Your task to perform on an android device: clear all cookies in the chrome app Image 0: 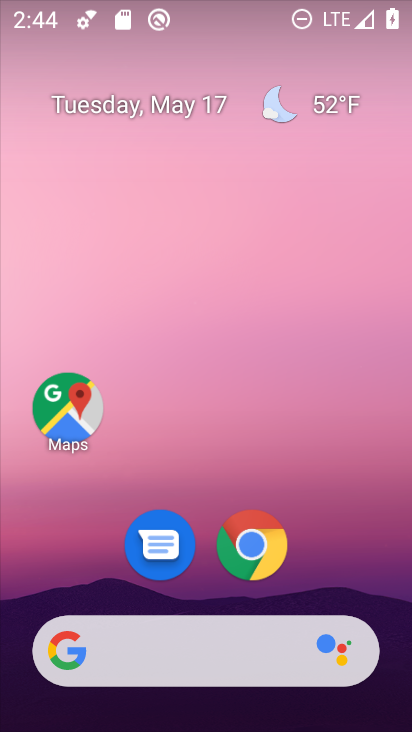
Step 0: drag from (371, 577) to (377, 145)
Your task to perform on an android device: clear all cookies in the chrome app Image 1: 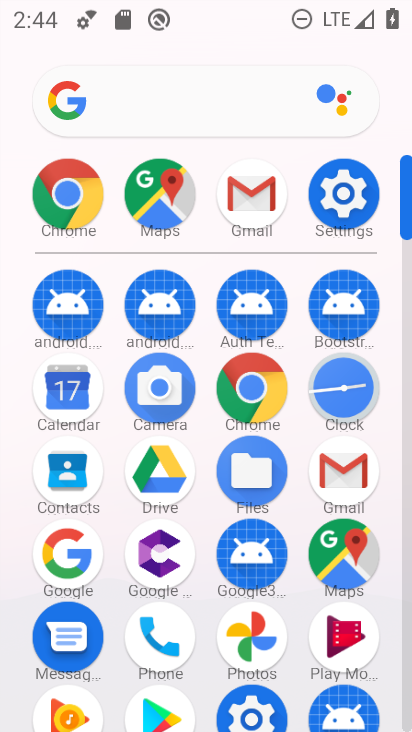
Step 1: click (274, 405)
Your task to perform on an android device: clear all cookies in the chrome app Image 2: 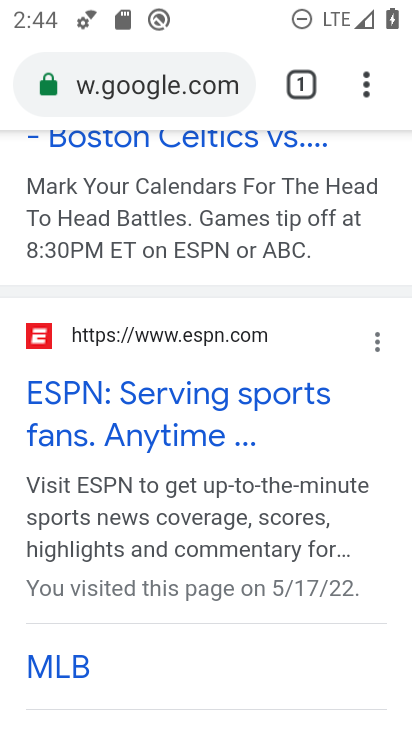
Step 2: click (368, 95)
Your task to perform on an android device: clear all cookies in the chrome app Image 3: 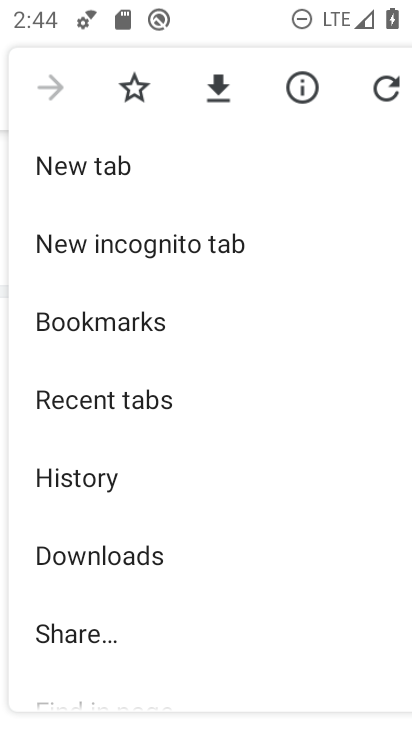
Step 3: drag from (359, 522) to (353, 404)
Your task to perform on an android device: clear all cookies in the chrome app Image 4: 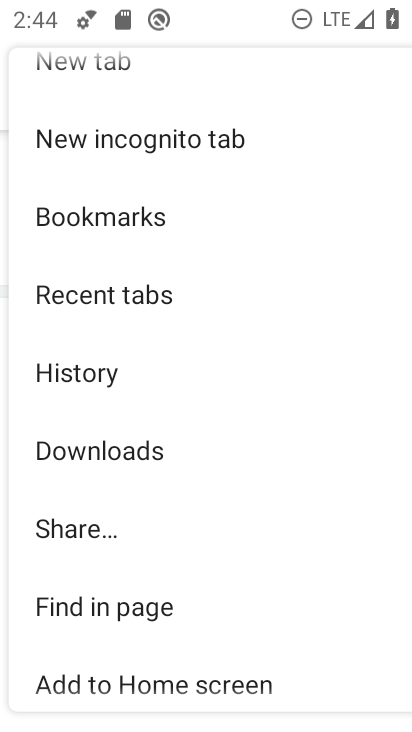
Step 4: drag from (304, 546) to (315, 362)
Your task to perform on an android device: clear all cookies in the chrome app Image 5: 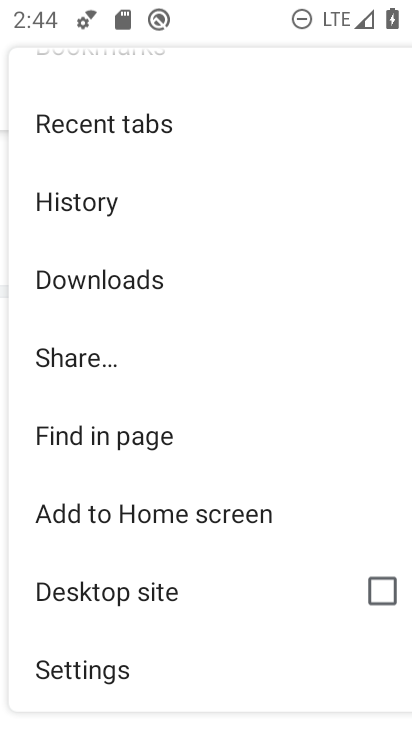
Step 5: drag from (306, 597) to (311, 467)
Your task to perform on an android device: clear all cookies in the chrome app Image 6: 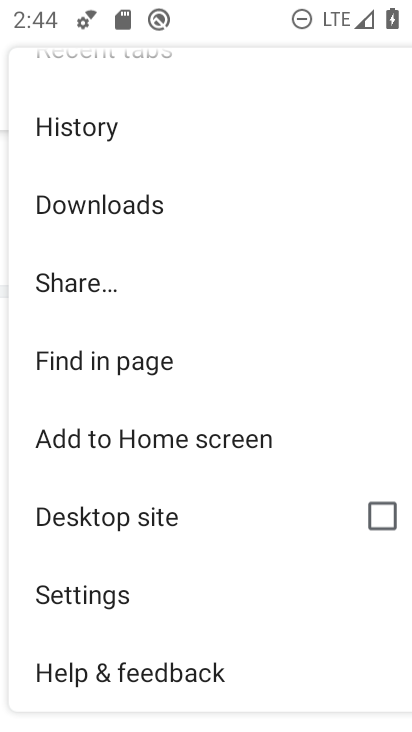
Step 6: drag from (301, 650) to (317, 497)
Your task to perform on an android device: clear all cookies in the chrome app Image 7: 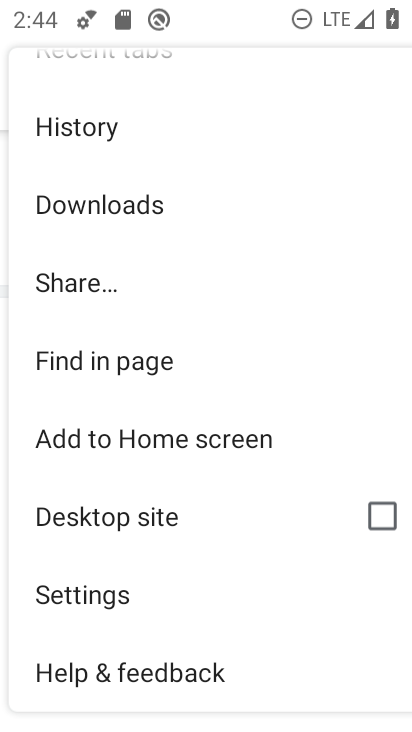
Step 7: drag from (309, 598) to (322, 459)
Your task to perform on an android device: clear all cookies in the chrome app Image 8: 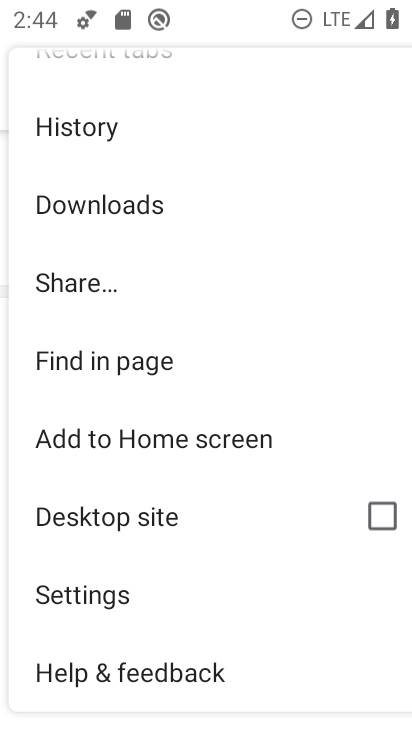
Step 8: drag from (343, 318) to (323, 424)
Your task to perform on an android device: clear all cookies in the chrome app Image 9: 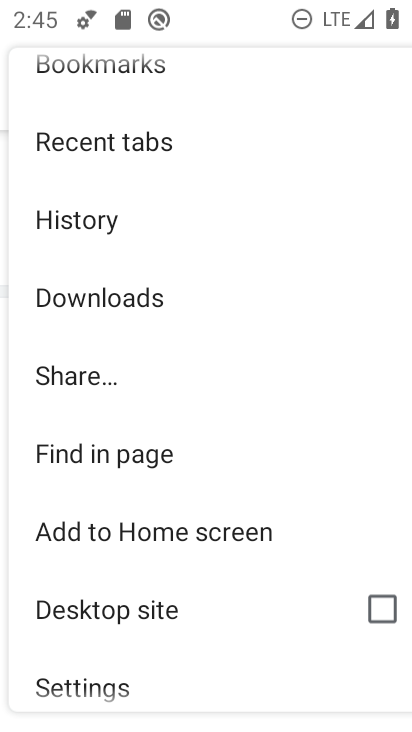
Step 9: click (162, 692)
Your task to perform on an android device: clear all cookies in the chrome app Image 10: 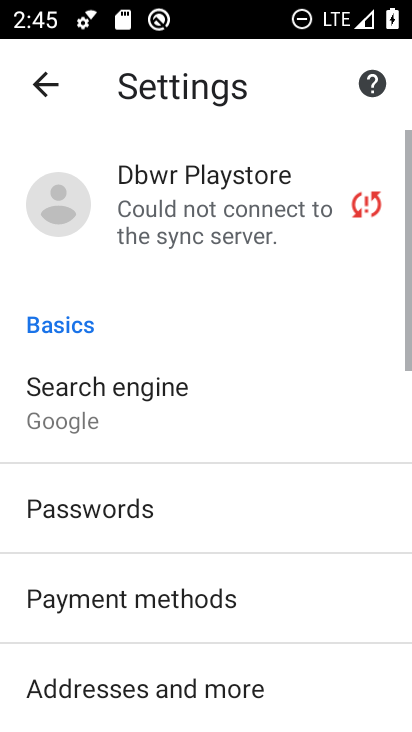
Step 10: drag from (298, 623) to (323, 477)
Your task to perform on an android device: clear all cookies in the chrome app Image 11: 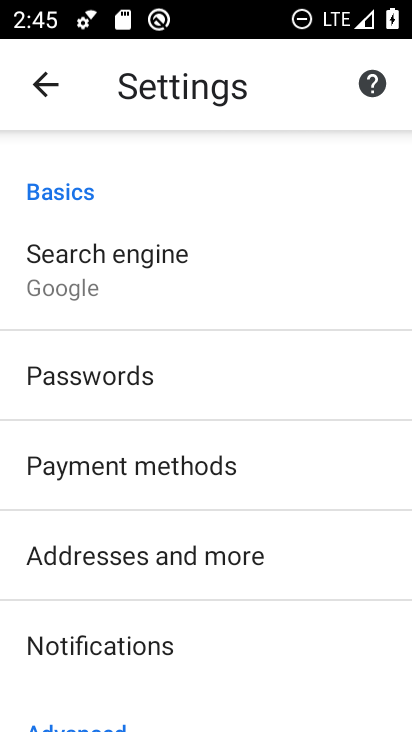
Step 11: drag from (317, 662) to (328, 568)
Your task to perform on an android device: clear all cookies in the chrome app Image 12: 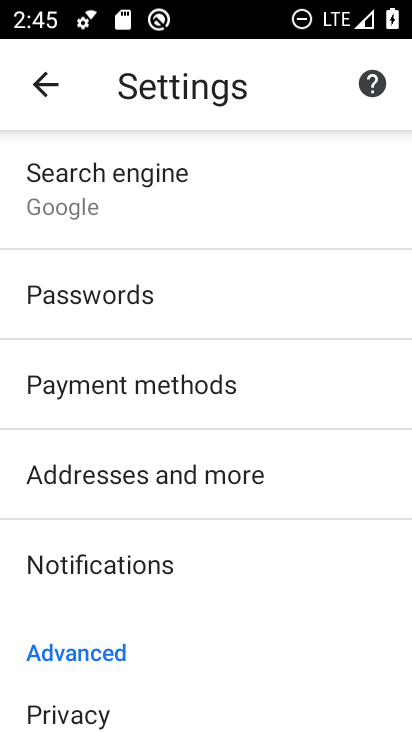
Step 12: drag from (329, 683) to (336, 551)
Your task to perform on an android device: clear all cookies in the chrome app Image 13: 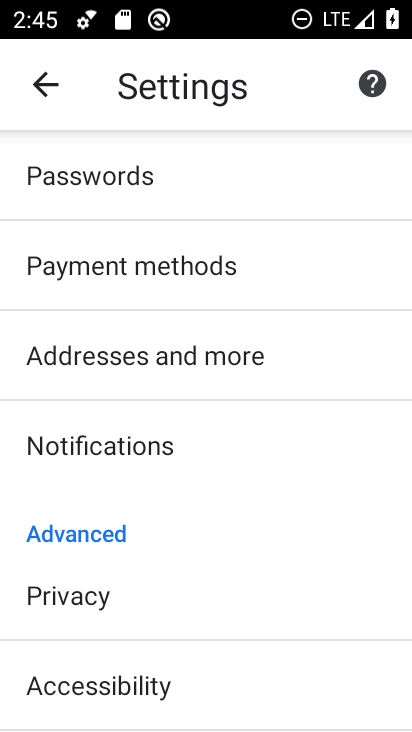
Step 13: drag from (308, 664) to (327, 553)
Your task to perform on an android device: clear all cookies in the chrome app Image 14: 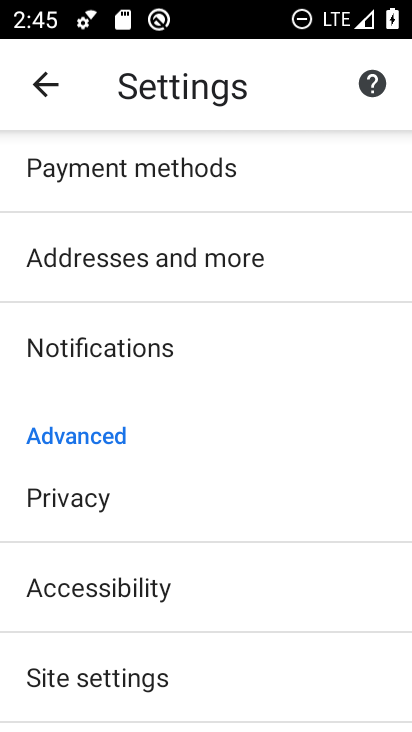
Step 14: drag from (321, 608) to (323, 476)
Your task to perform on an android device: clear all cookies in the chrome app Image 15: 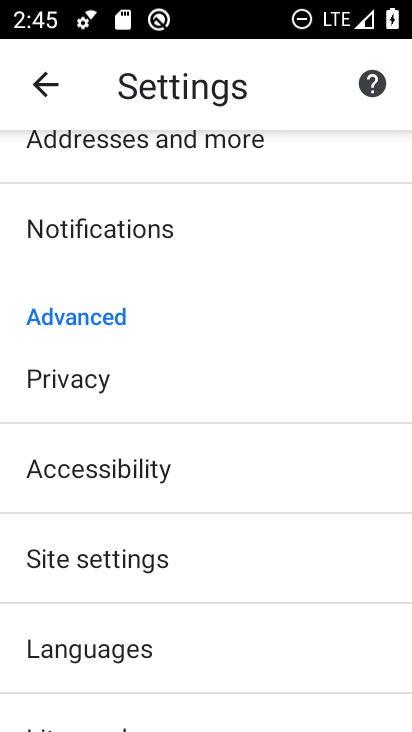
Step 15: drag from (312, 629) to (314, 518)
Your task to perform on an android device: clear all cookies in the chrome app Image 16: 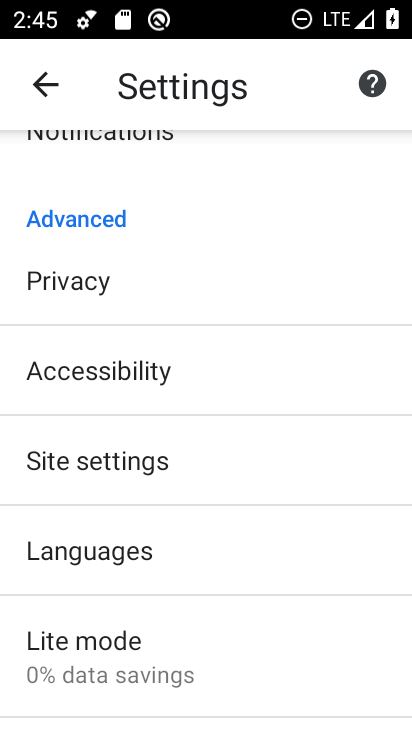
Step 16: drag from (314, 663) to (319, 549)
Your task to perform on an android device: clear all cookies in the chrome app Image 17: 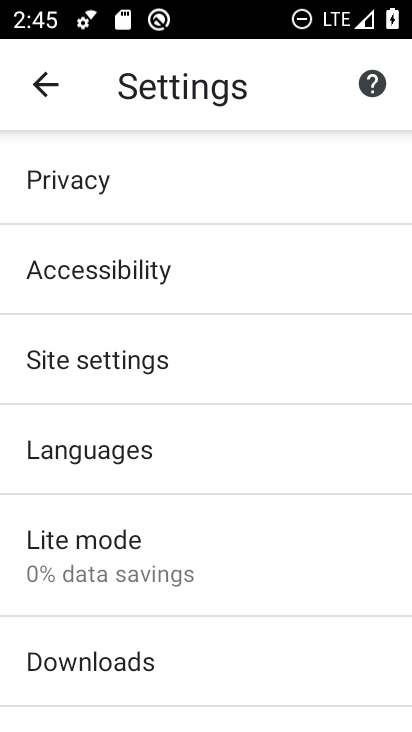
Step 17: drag from (305, 682) to (309, 562)
Your task to perform on an android device: clear all cookies in the chrome app Image 18: 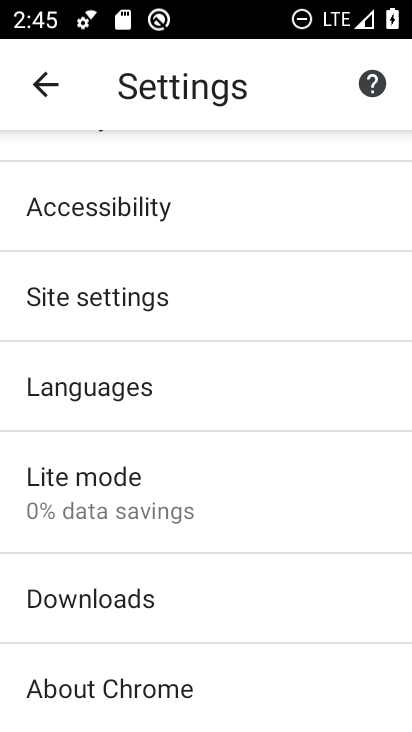
Step 18: drag from (301, 690) to (310, 578)
Your task to perform on an android device: clear all cookies in the chrome app Image 19: 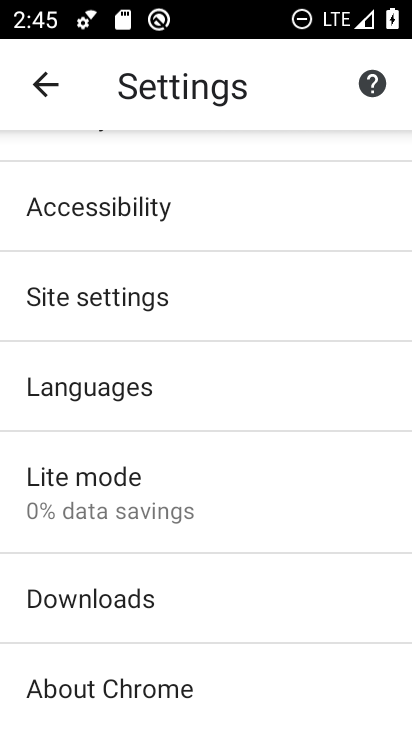
Step 19: drag from (307, 363) to (309, 453)
Your task to perform on an android device: clear all cookies in the chrome app Image 20: 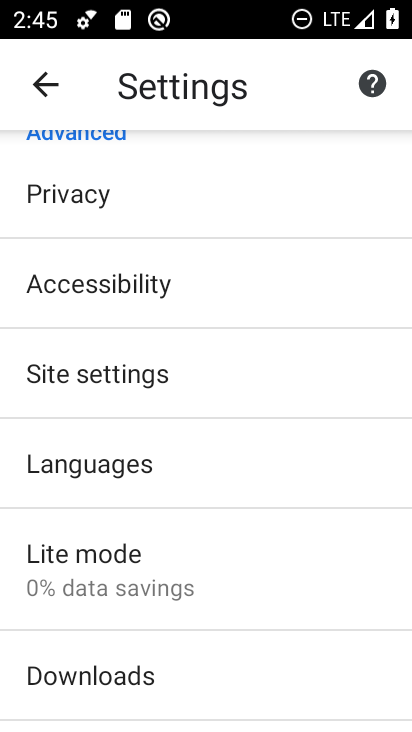
Step 20: drag from (285, 641) to (288, 531)
Your task to perform on an android device: clear all cookies in the chrome app Image 21: 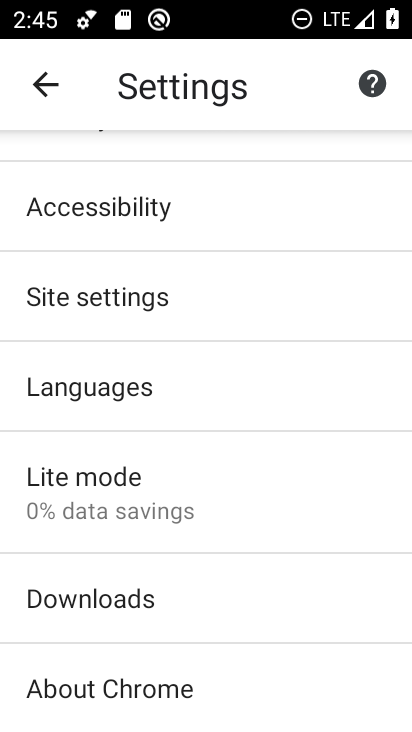
Step 21: drag from (315, 320) to (304, 473)
Your task to perform on an android device: clear all cookies in the chrome app Image 22: 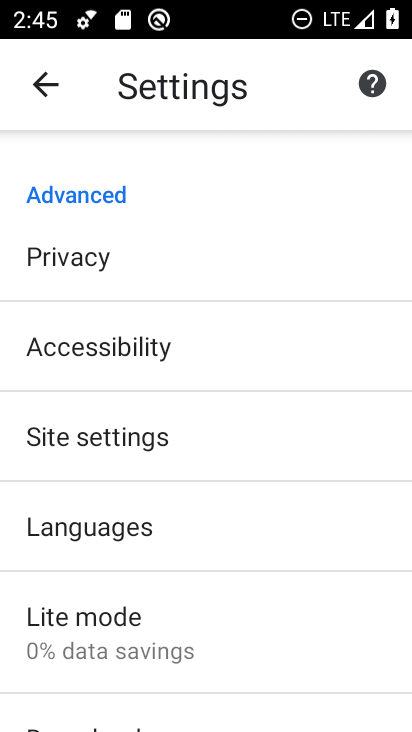
Step 22: click (191, 282)
Your task to perform on an android device: clear all cookies in the chrome app Image 23: 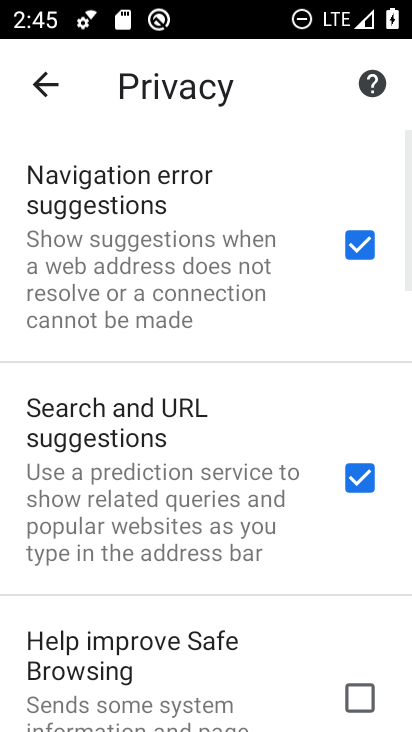
Step 23: drag from (273, 593) to (280, 486)
Your task to perform on an android device: clear all cookies in the chrome app Image 24: 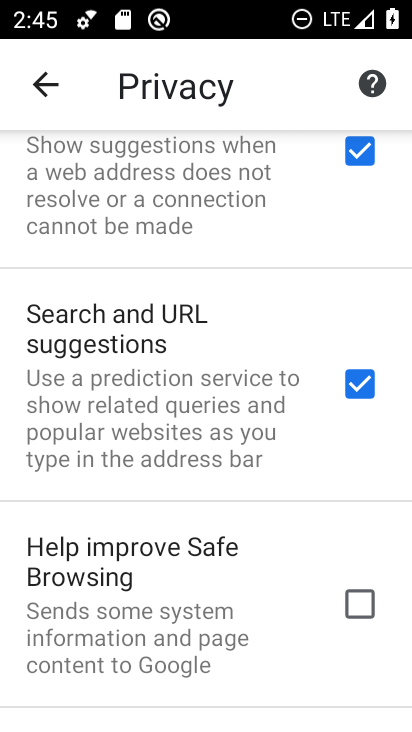
Step 24: drag from (294, 640) to (300, 542)
Your task to perform on an android device: clear all cookies in the chrome app Image 25: 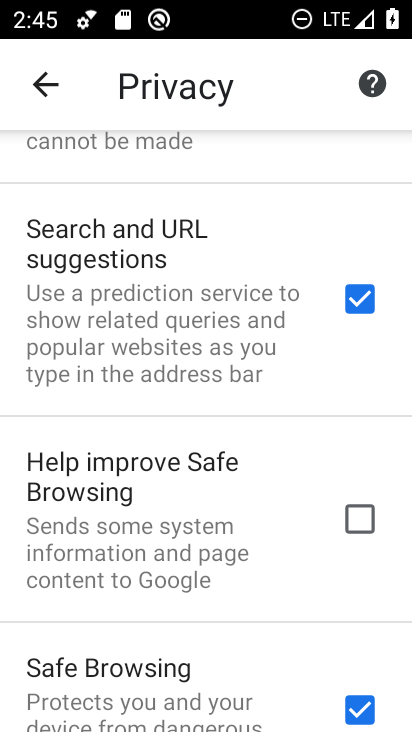
Step 25: drag from (274, 688) to (280, 589)
Your task to perform on an android device: clear all cookies in the chrome app Image 26: 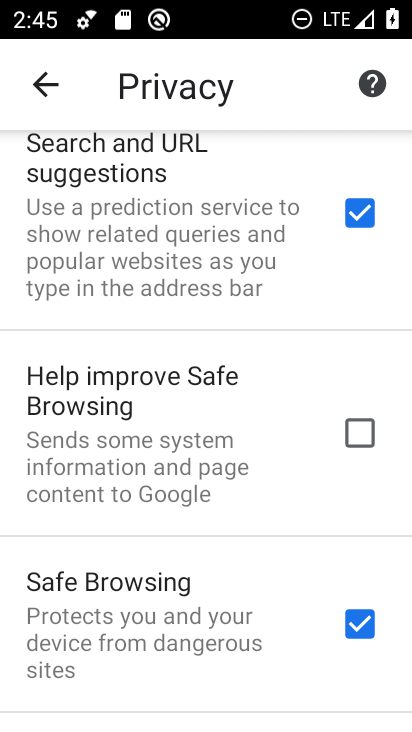
Step 26: drag from (286, 642) to (287, 527)
Your task to perform on an android device: clear all cookies in the chrome app Image 27: 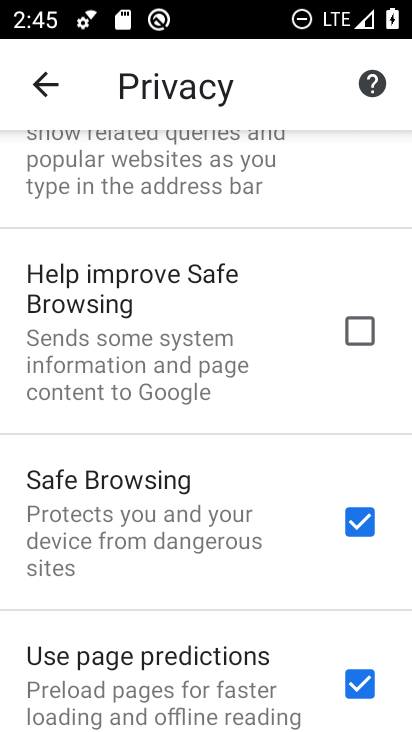
Step 27: drag from (284, 593) to (273, 485)
Your task to perform on an android device: clear all cookies in the chrome app Image 28: 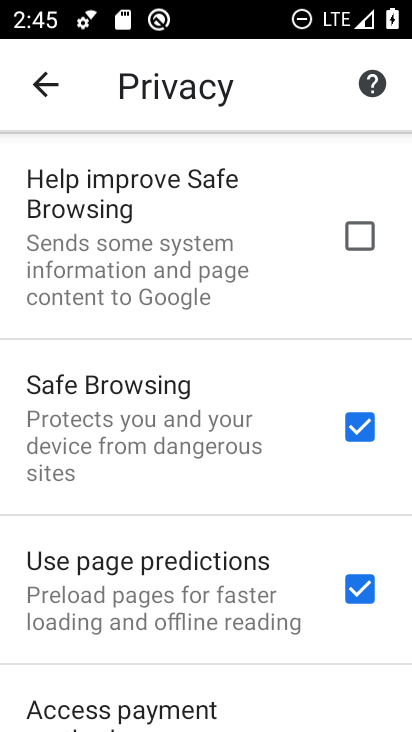
Step 28: drag from (263, 654) to (264, 533)
Your task to perform on an android device: clear all cookies in the chrome app Image 29: 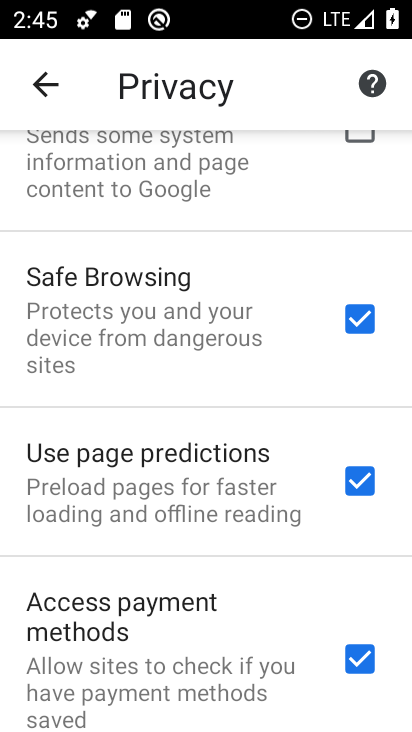
Step 29: drag from (267, 644) to (274, 573)
Your task to perform on an android device: clear all cookies in the chrome app Image 30: 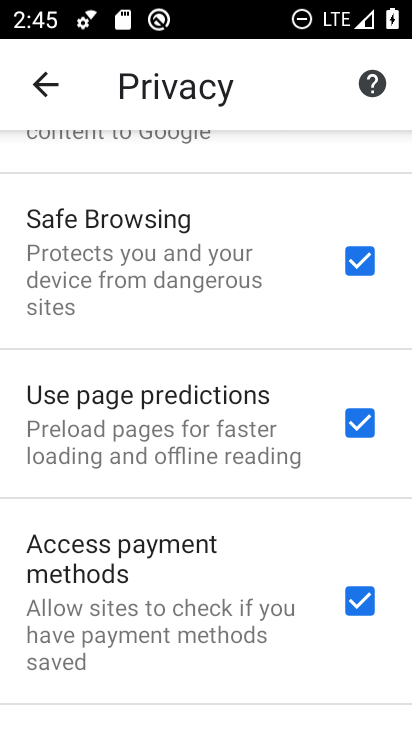
Step 30: drag from (271, 655) to (273, 577)
Your task to perform on an android device: clear all cookies in the chrome app Image 31: 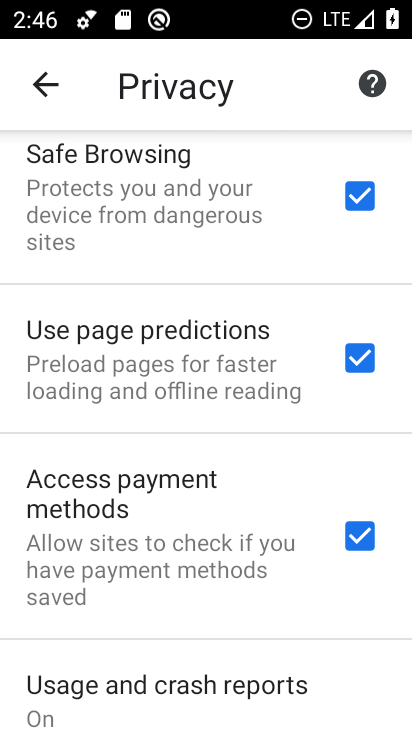
Step 31: drag from (244, 629) to (247, 553)
Your task to perform on an android device: clear all cookies in the chrome app Image 32: 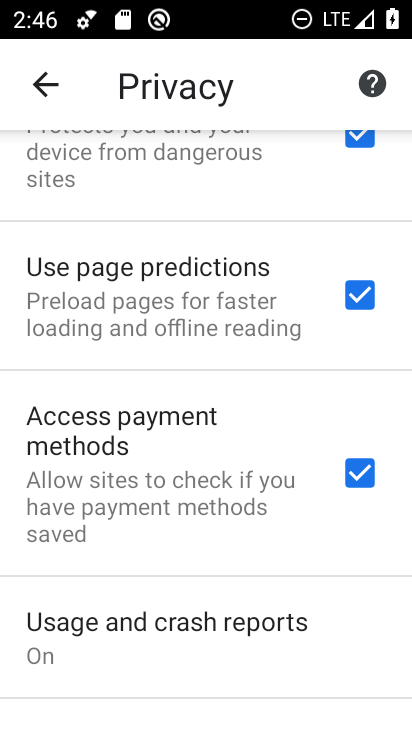
Step 32: drag from (255, 678) to (259, 559)
Your task to perform on an android device: clear all cookies in the chrome app Image 33: 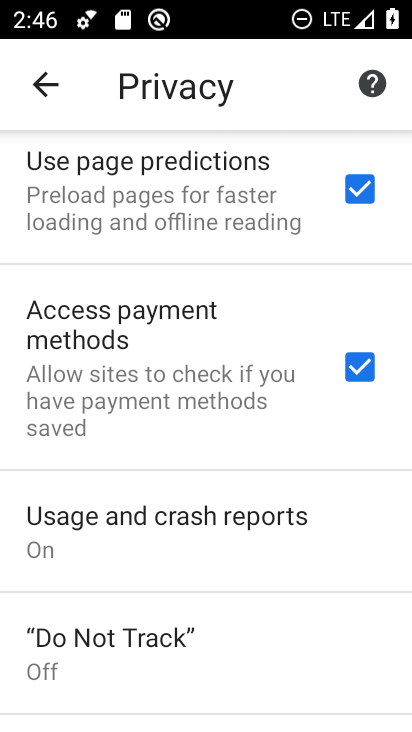
Step 33: drag from (271, 693) to (284, 591)
Your task to perform on an android device: clear all cookies in the chrome app Image 34: 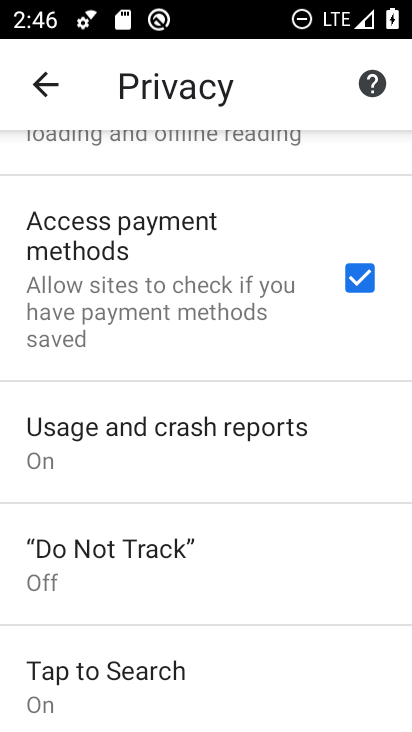
Step 34: click (285, 643)
Your task to perform on an android device: clear all cookies in the chrome app Image 35: 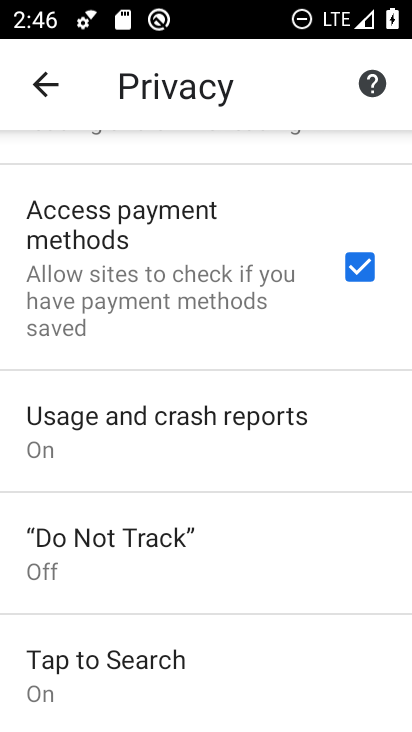
Step 35: drag from (292, 640) to (298, 516)
Your task to perform on an android device: clear all cookies in the chrome app Image 36: 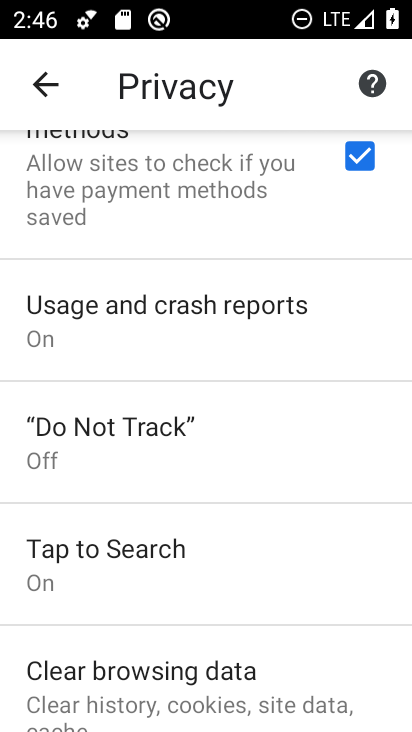
Step 36: drag from (309, 650) to (318, 536)
Your task to perform on an android device: clear all cookies in the chrome app Image 37: 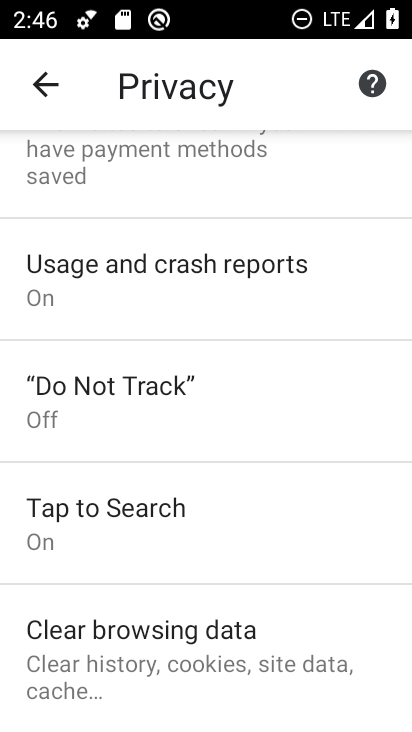
Step 37: click (286, 630)
Your task to perform on an android device: clear all cookies in the chrome app Image 38: 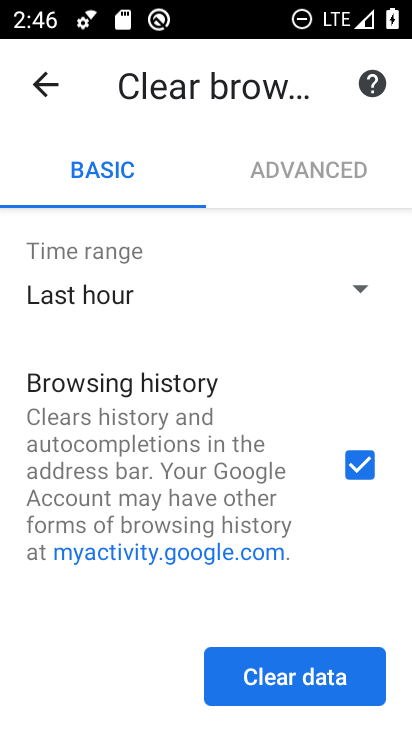
Step 38: click (307, 668)
Your task to perform on an android device: clear all cookies in the chrome app Image 39: 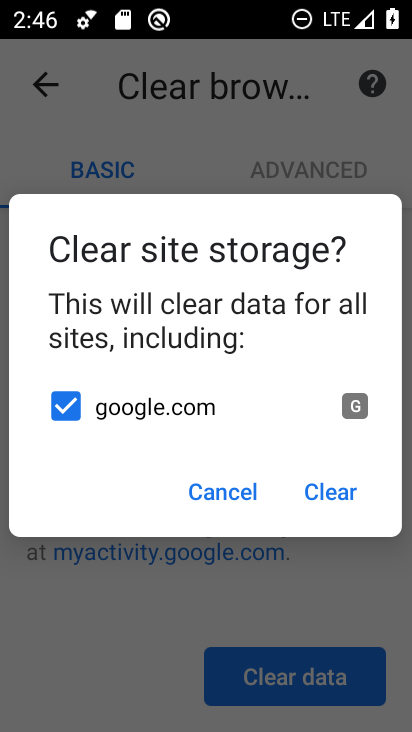
Step 39: click (358, 460)
Your task to perform on an android device: clear all cookies in the chrome app Image 40: 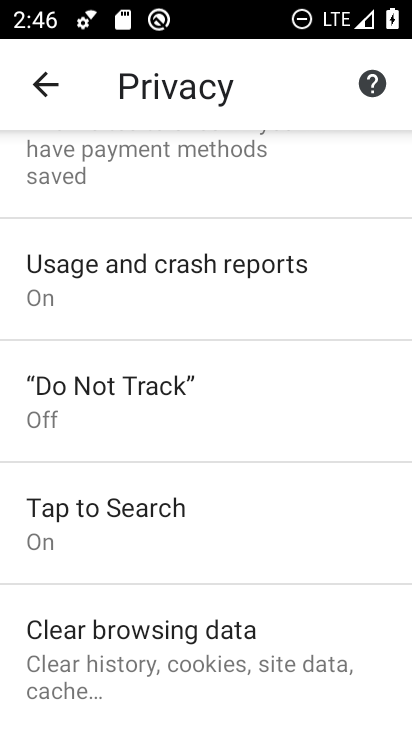
Step 40: task complete